Your task to perform on an android device: Open Maps and search for coffee Image 0: 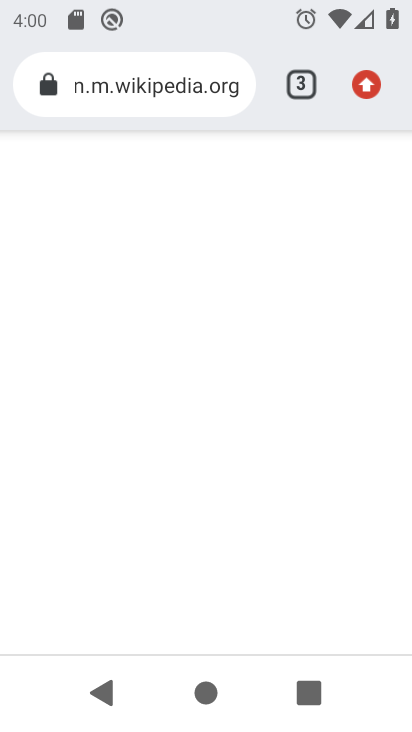
Step 0: press home button
Your task to perform on an android device: Open Maps and search for coffee Image 1: 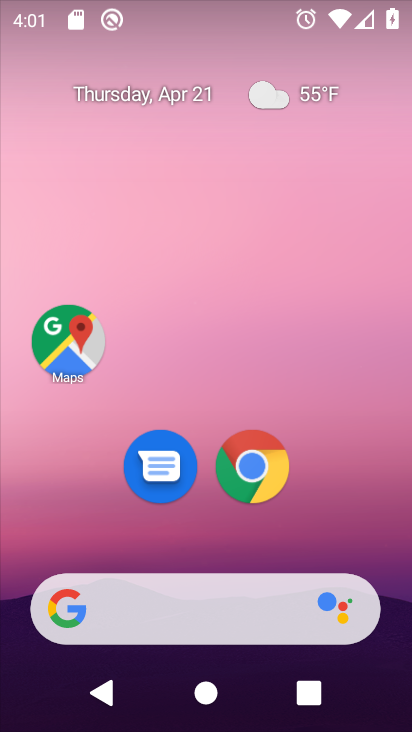
Step 1: click (66, 339)
Your task to perform on an android device: Open Maps and search for coffee Image 2: 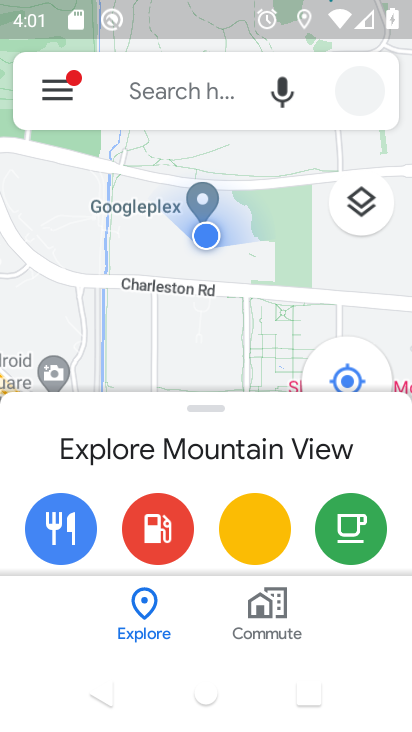
Step 2: click (210, 112)
Your task to perform on an android device: Open Maps and search for coffee Image 3: 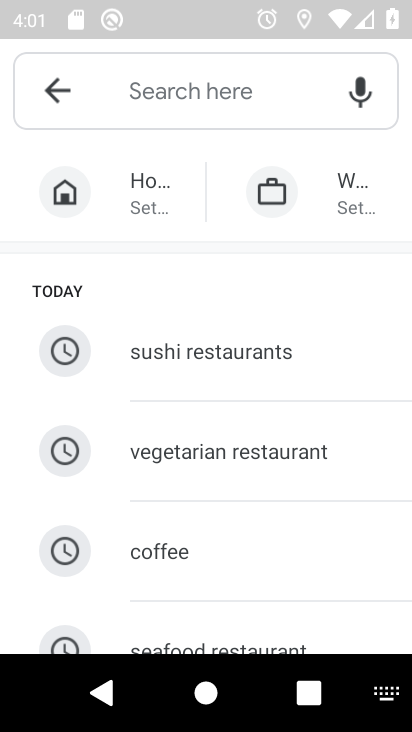
Step 3: type "coffee"
Your task to perform on an android device: Open Maps and search for coffee Image 4: 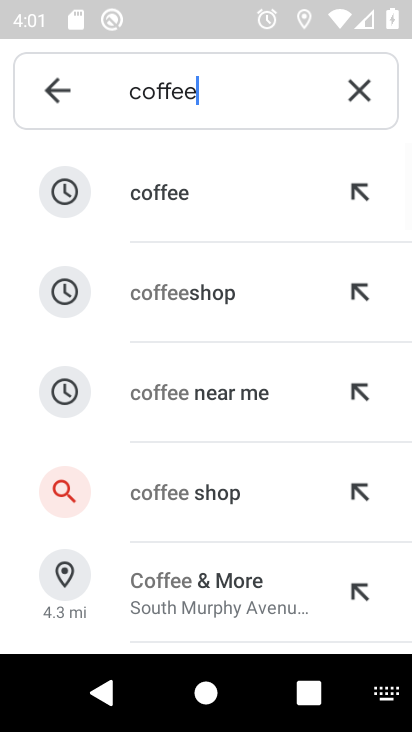
Step 4: task complete